Your task to perform on an android device: Do I have any events today? Image 0: 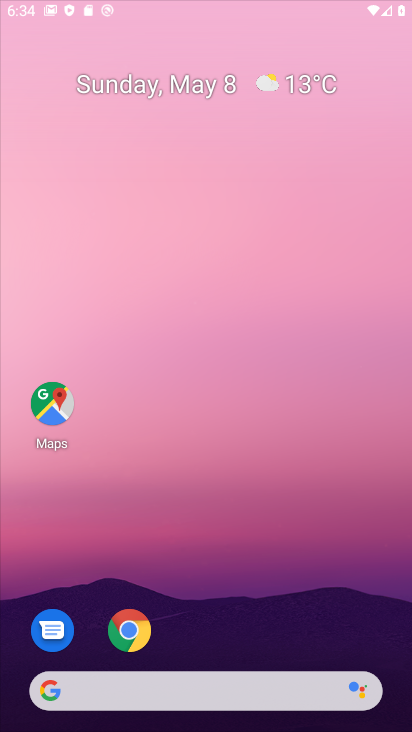
Step 0: click (126, 148)
Your task to perform on an android device: Do I have any events today? Image 1: 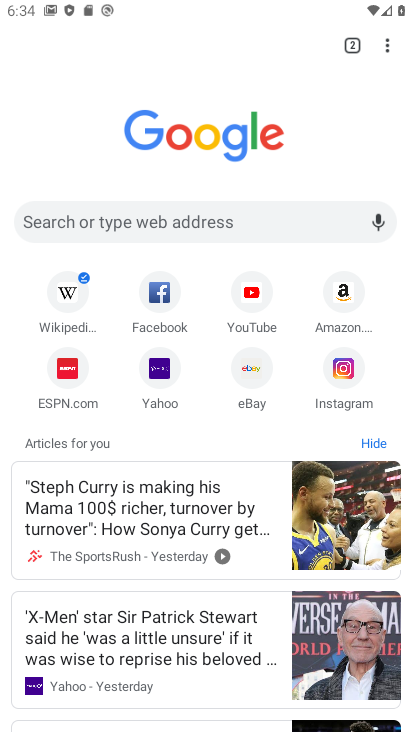
Step 1: press home button
Your task to perform on an android device: Do I have any events today? Image 2: 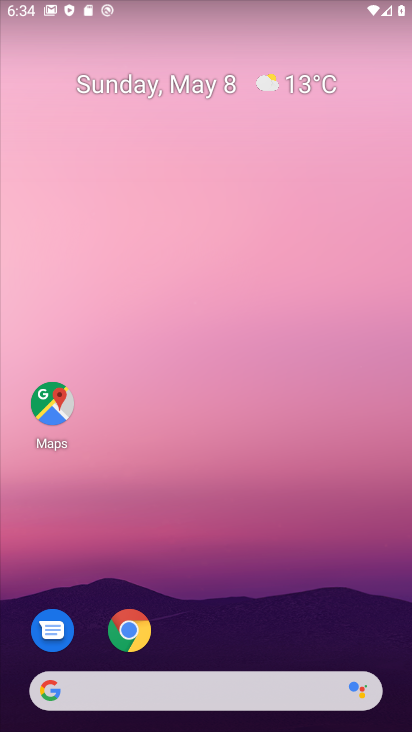
Step 2: drag from (216, 644) to (136, 129)
Your task to perform on an android device: Do I have any events today? Image 3: 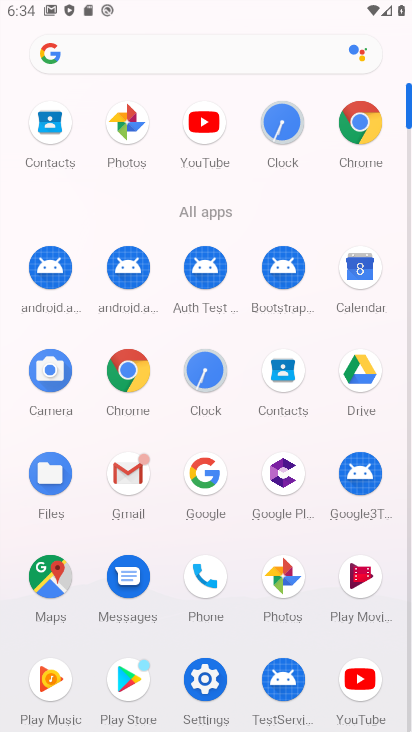
Step 3: click (359, 273)
Your task to perform on an android device: Do I have any events today? Image 4: 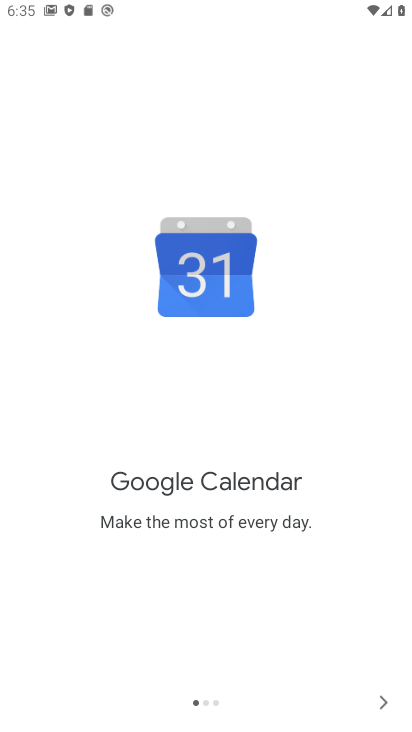
Step 4: click (389, 703)
Your task to perform on an android device: Do I have any events today? Image 5: 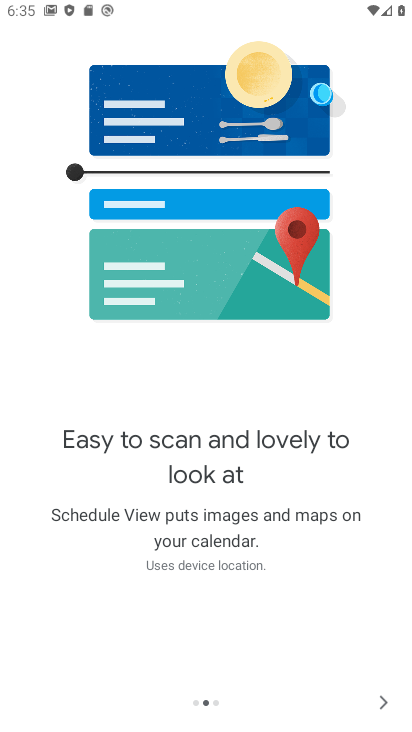
Step 5: click (389, 703)
Your task to perform on an android device: Do I have any events today? Image 6: 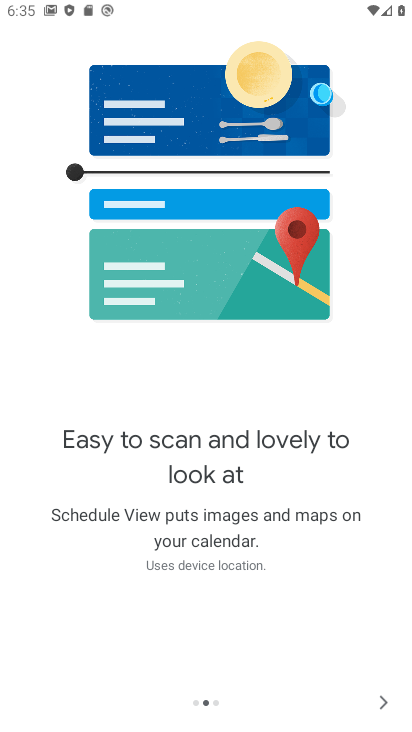
Step 6: click (389, 703)
Your task to perform on an android device: Do I have any events today? Image 7: 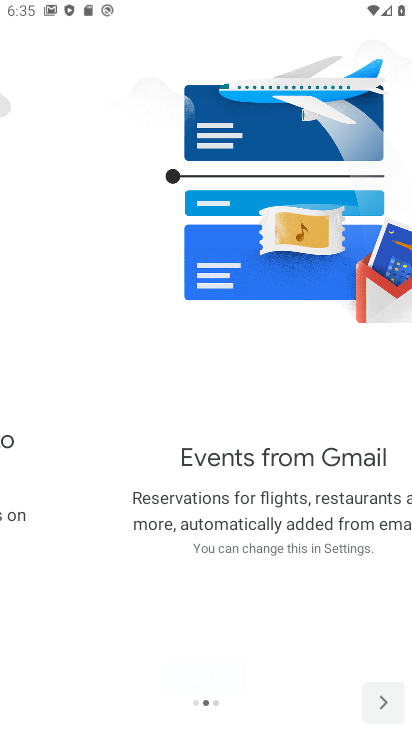
Step 7: click (389, 703)
Your task to perform on an android device: Do I have any events today? Image 8: 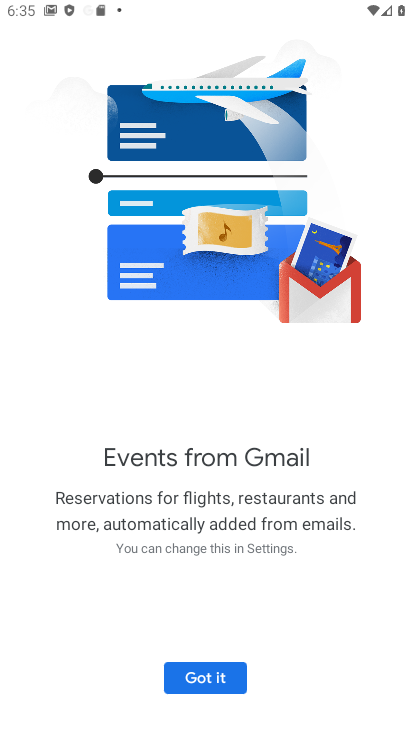
Step 8: click (203, 678)
Your task to perform on an android device: Do I have any events today? Image 9: 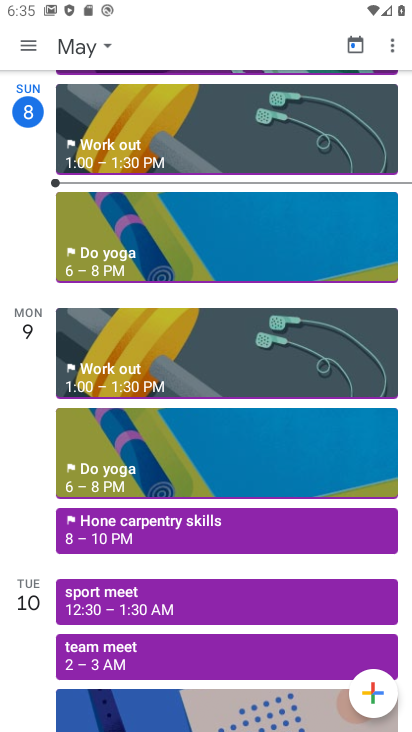
Step 9: click (22, 38)
Your task to perform on an android device: Do I have any events today? Image 10: 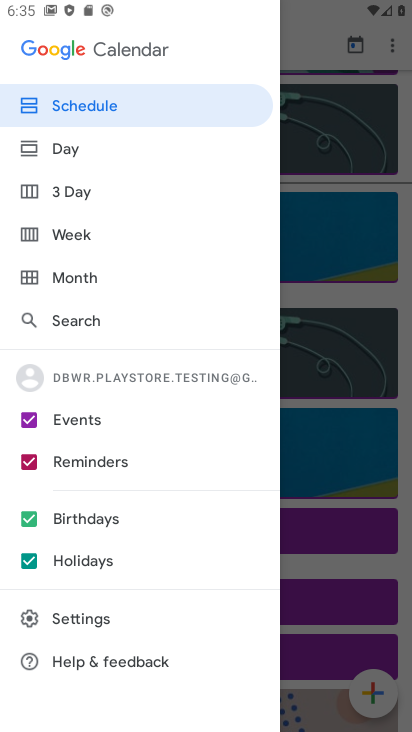
Step 10: click (66, 142)
Your task to perform on an android device: Do I have any events today? Image 11: 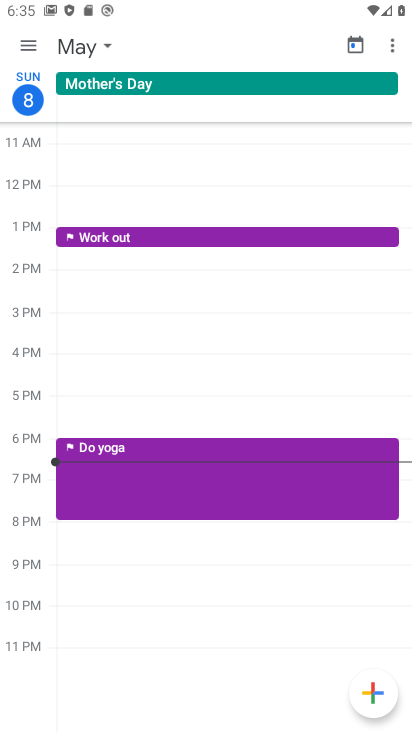
Step 11: task complete